Your task to perform on an android device: read, delete, or share a saved page in the chrome app Image 0: 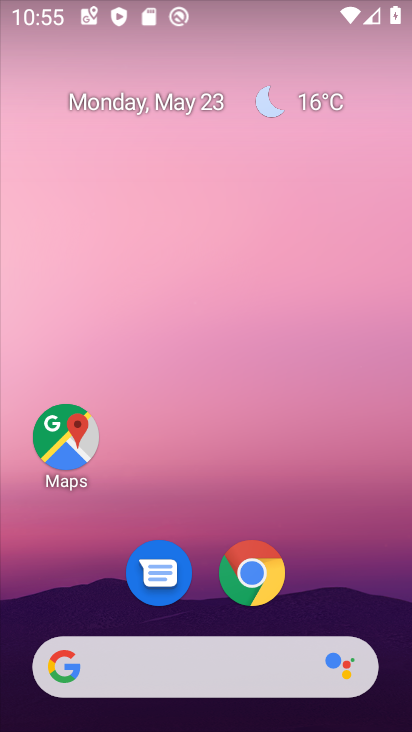
Step 0: drag from (337, 573) to (245, 32)
Your task to perform on an android device: read, delete, or share a saved page in the chrome app Image 1: 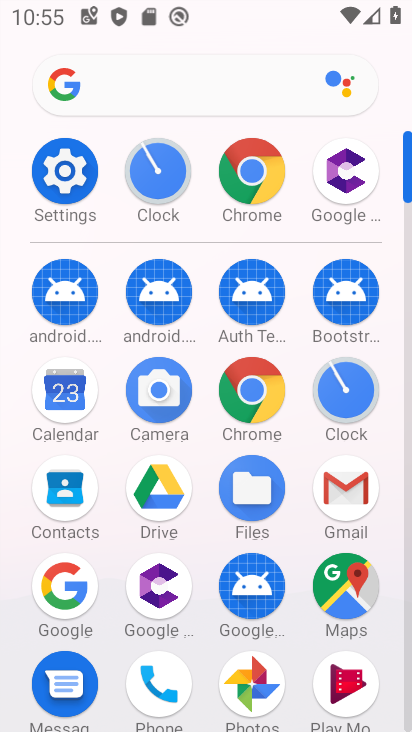
Step 1: drag from (4, 532) to (10, 328)
Your task to perform on an android device: read, delete, or share a saved page in the chrome app Image 2: 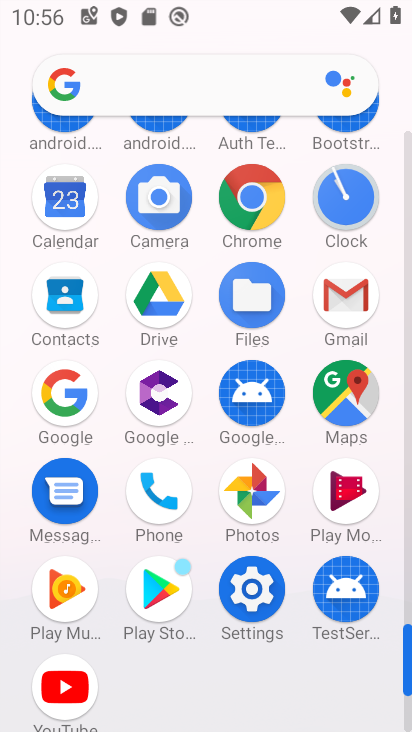
Step 2: click (257, 192)
Your task to perform on an android device: read, delete, or share a saved page in the chrome app Image 3: 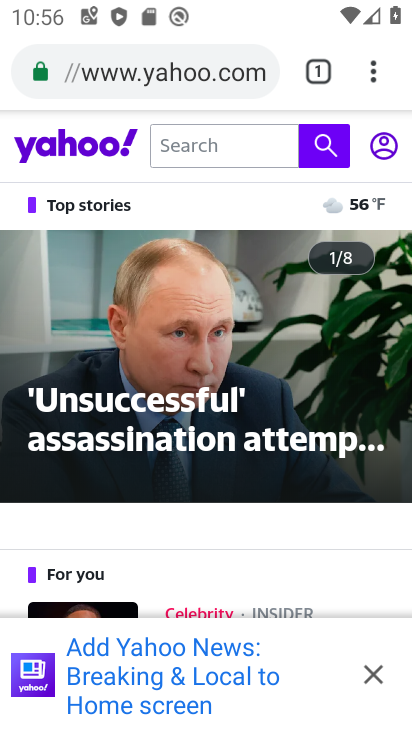
Step 3: task complete